Your task to perform on an android device: allow notifications from all sites in the chrome app Image 0: 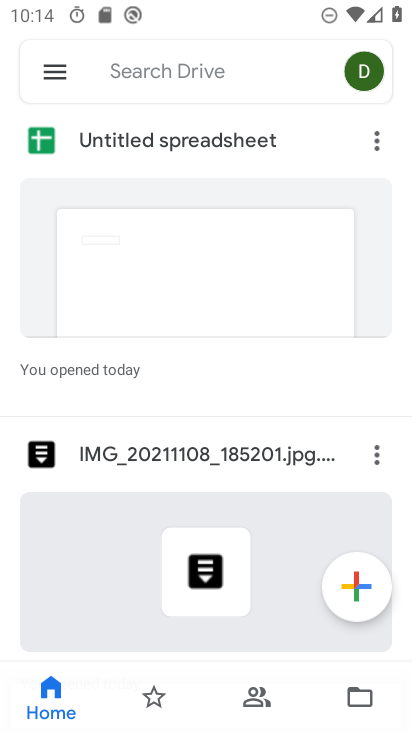
Step 0: press home button
Your task to perform on an android device: allow notifications from all sites in the chrome app Image 1: 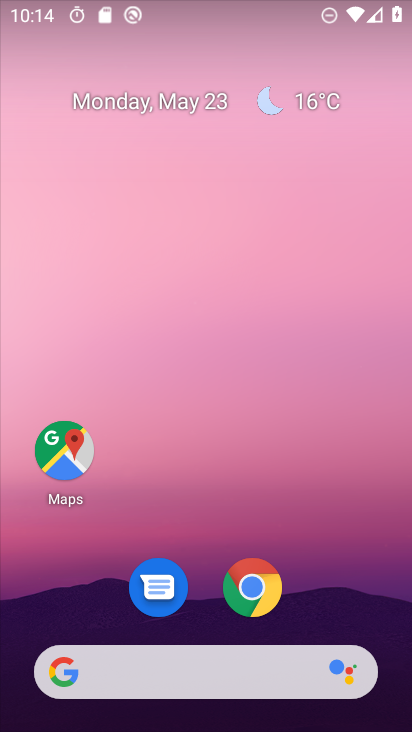
Step 1: click (264, 602)
Your task to perform on an android device: allow notifications from all sites in the chrome app Image 2: 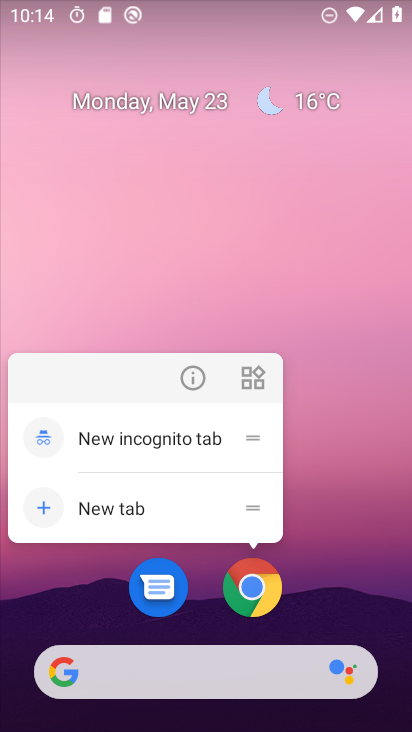
Step 2: click (227, 583)
Your task to perform on an android device: allow notifications from all sites in the chrome app Image 3: 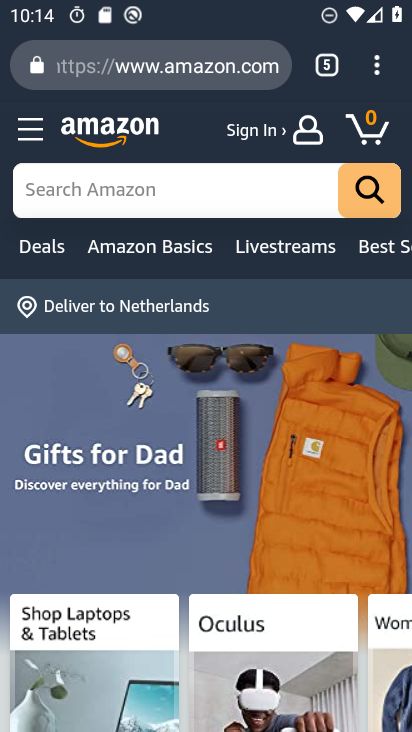
Step 3: drag from (376, 62) to (177, 631)
Your task to perform on an android device: allow notifications from all sites in the chrome app Image 4: 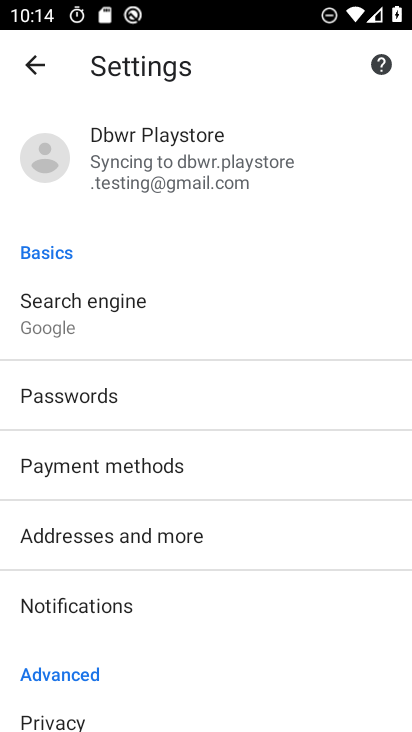
Step 4: click (79, 610)
Your task to perform on an android device: allow notifications from all sites in the chrome app Image 5: 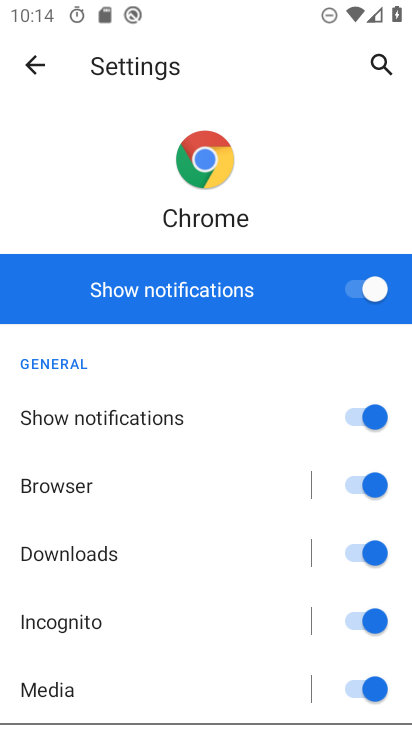
Step 5: task complete